Your task to perform on an android device: Show me recent news Image 0: 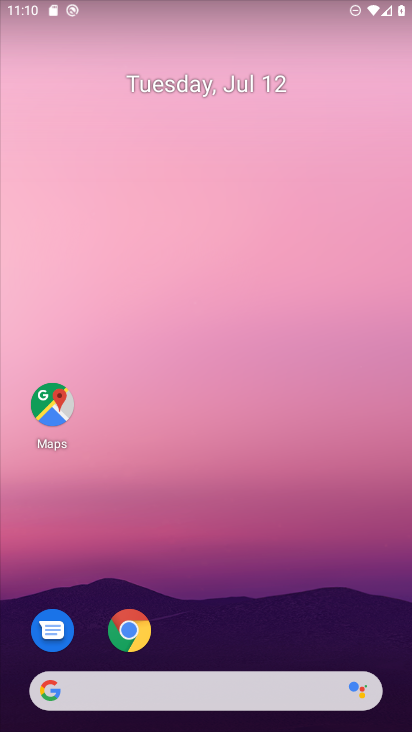
Step 0: drag from (274, 554) to (237, 128)
Your task to perform on an android device: Show me recent news Image 1: 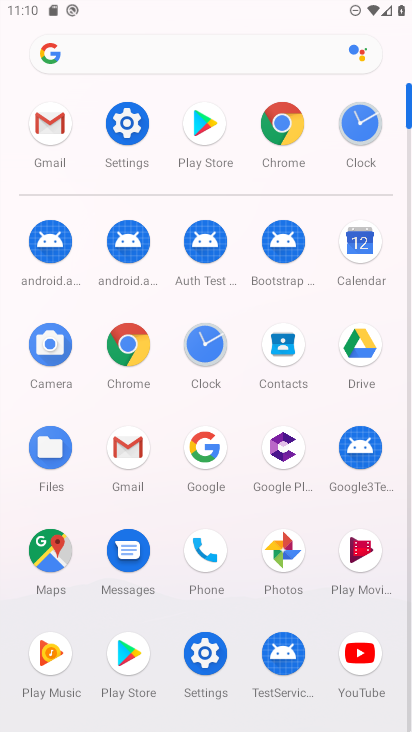
Step 1: click (276, 127)
Your task to perform on an android device: Show me recent news Image 2: 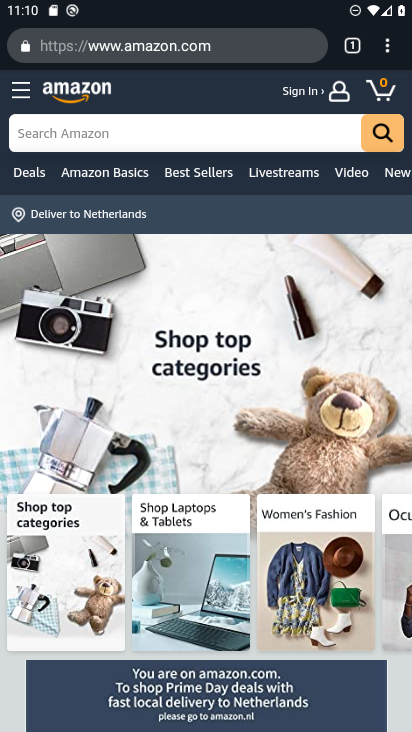
Step 2: click (245, 40)
Your task to perform on an android device: Show me recent news Image 3: 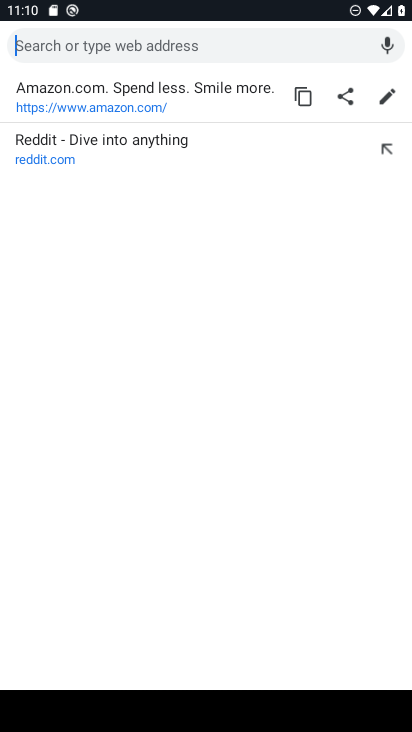
Step 3: type "news"
Your task to perform on an android device: Show me recent news Image 4: 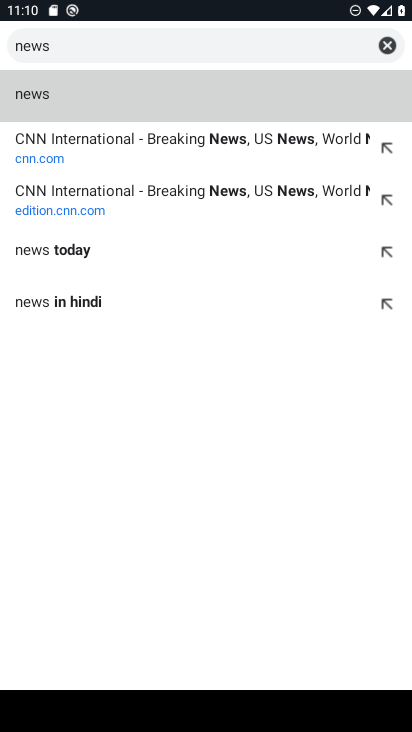
Step 4: click (40, 101)
Your task to perform on an android device: Show me recent news Image 5: 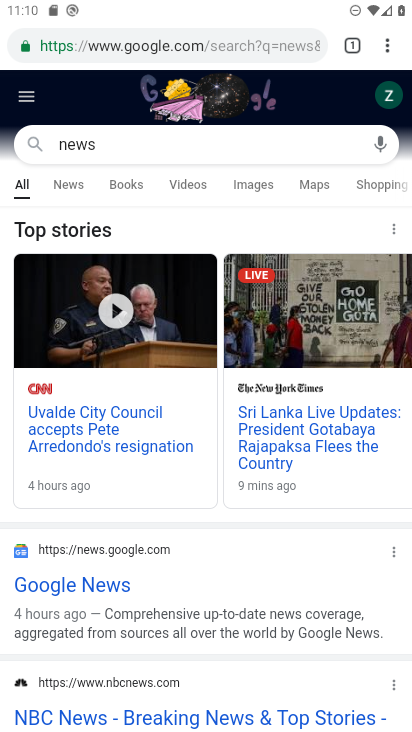
Step 5: click (104, 587)
Your task to perform on an android device: Show me recent news Image 6: 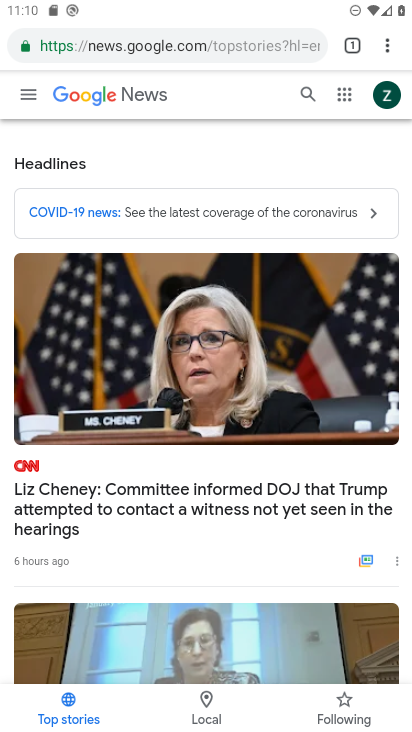
Step 6: task complete